Your task to perform on an android device: Open the stopwatch Image 0: 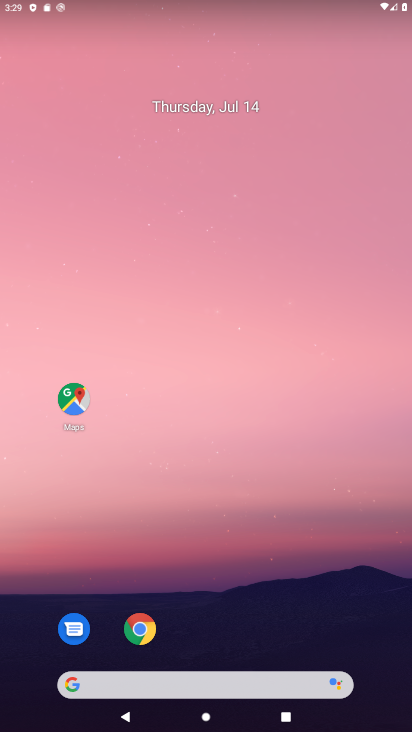
Step 0: drag from (318, 447) to (373, 68)
Your task to perform on an android device: Open the stopwatch Image 1: 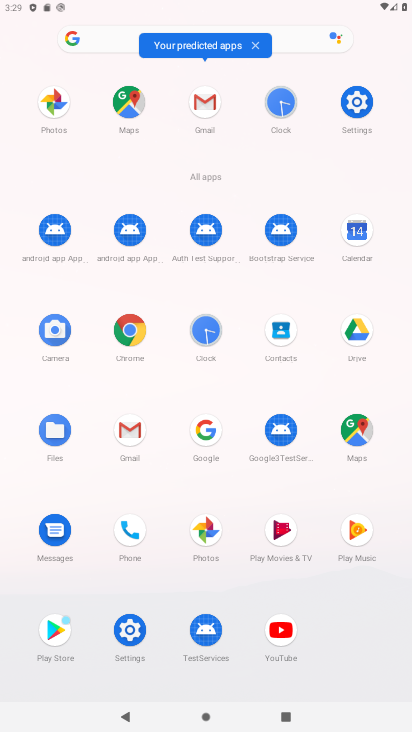
Step 1: click (210, 329)
Your task to perform on an android device: Open the stopwatch Image 2: 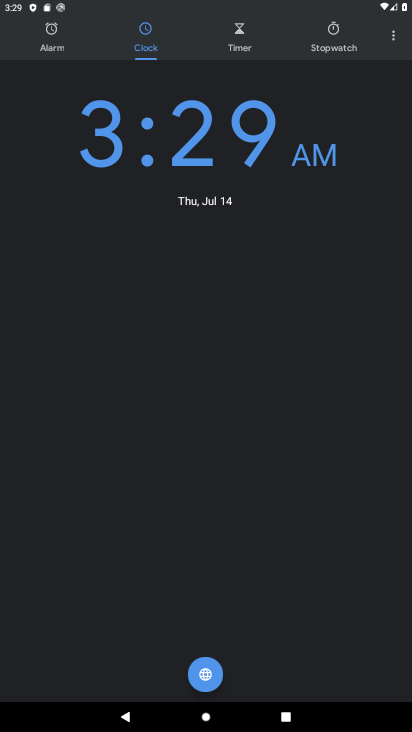
Step 2: click (338, 39)
Your task to perform on an android device: Open the stopwatch Image 3: 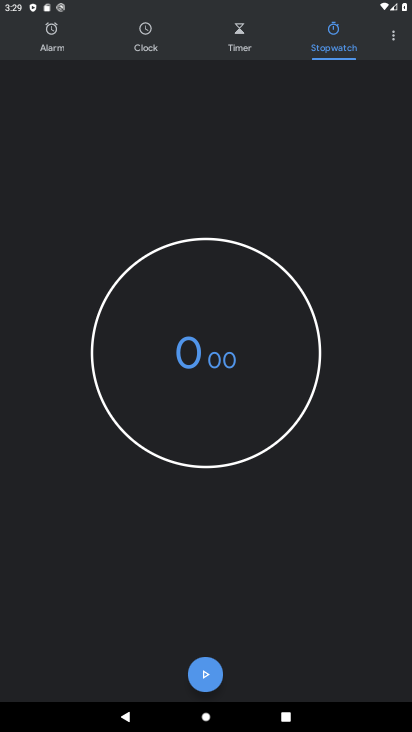
Step 3: click (194, 675)
Your task to perform on an android device: Open the stopwatch Image 4: 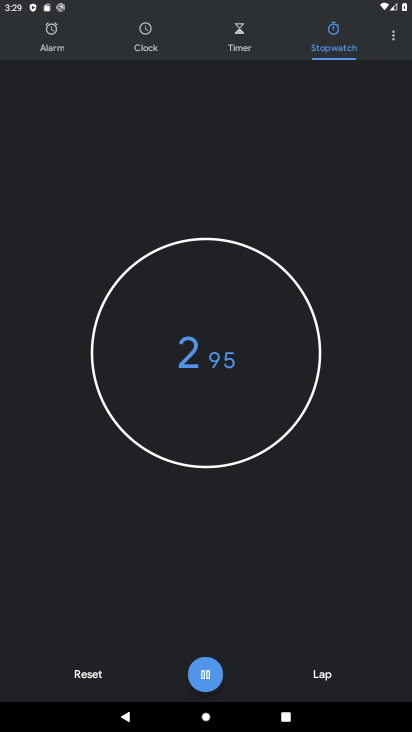
Step 4: task complete